Your task to perform on an android device: turn off javascript in the chrome app Image 0: 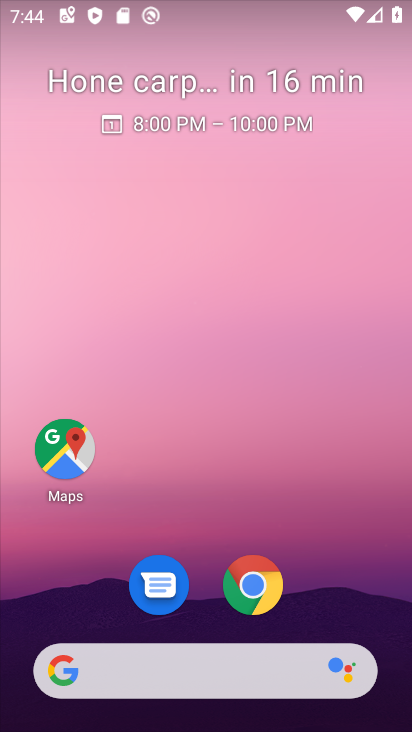
Step 0: click (264, 584)
Your task to perform on an android device: turn off javascript in the chrome app Image 1: 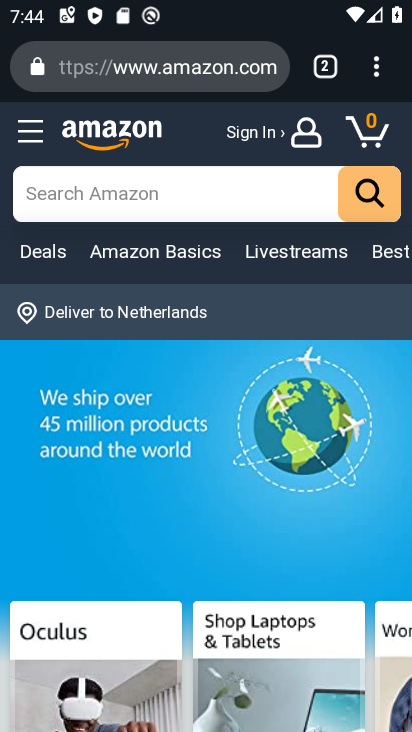
Step 1: click (378, 68)
Your task to perform on an android device: turn off javascript in the chrome app Image 2: 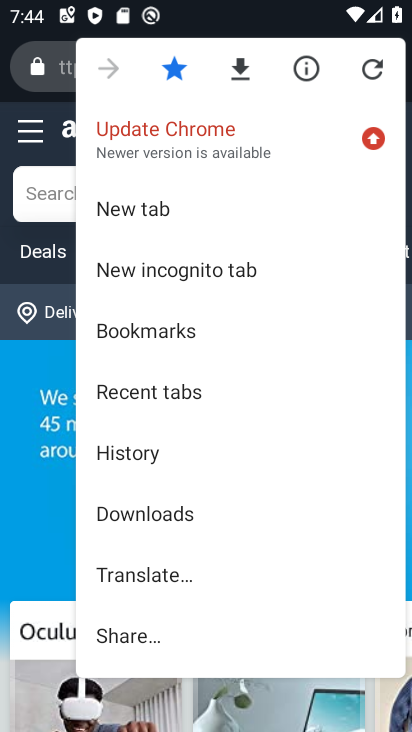
Step 2: drag from (301, 561) to (308, 249)
Your task to perform on an android device: turn off javascript in the chrome app Image 3: 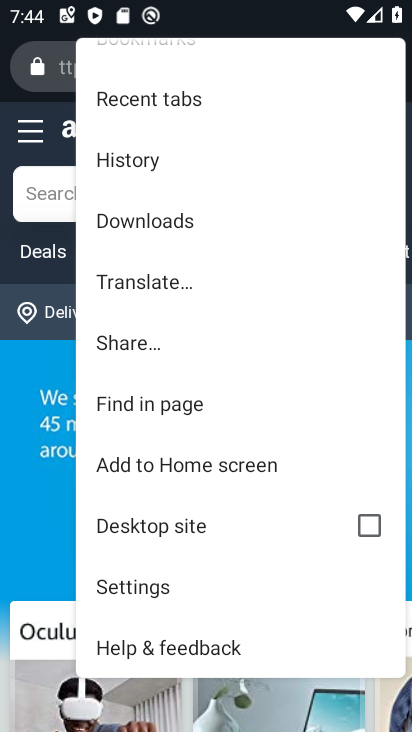
Step 3: click (195, 582)
Your task to perform on an android device: turn off javascript in the chrome app Image 4: 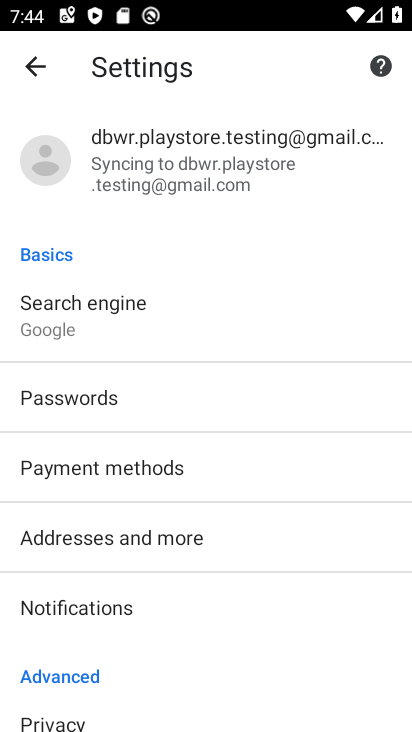
Step 4: drag from (195, 582) to (251, 310)
Your task to perform on an android device: turn off javascript in the chrome app Image 5: 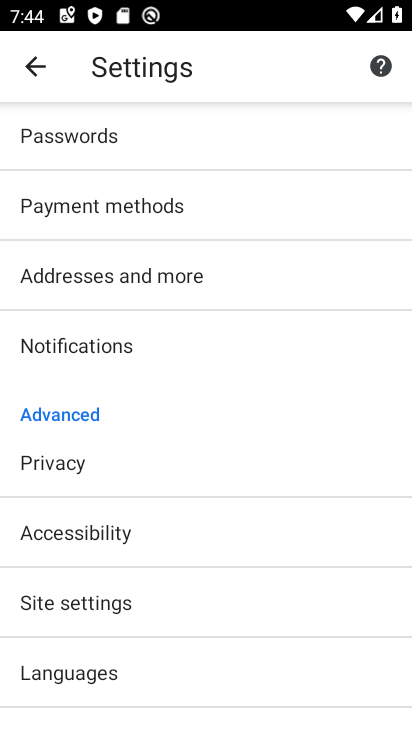
Step 5: click (182, 594)
Your task to perform on an android device: turn off javascript in the chrome app Image 6: 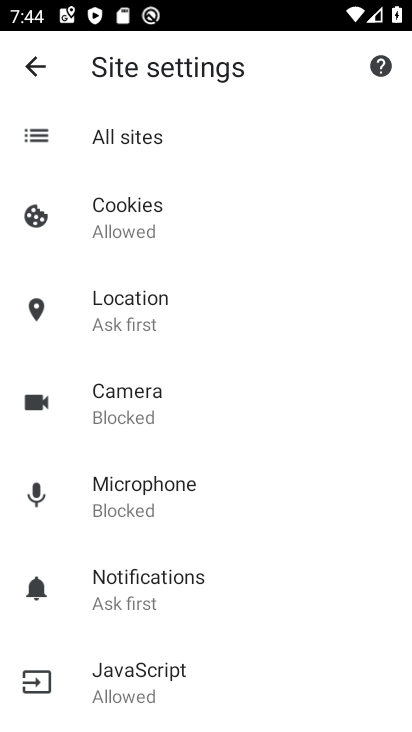
Step 6: click (177, 679)
Your task to perform on an android device: turn off javascript in the chrome app Image 7: 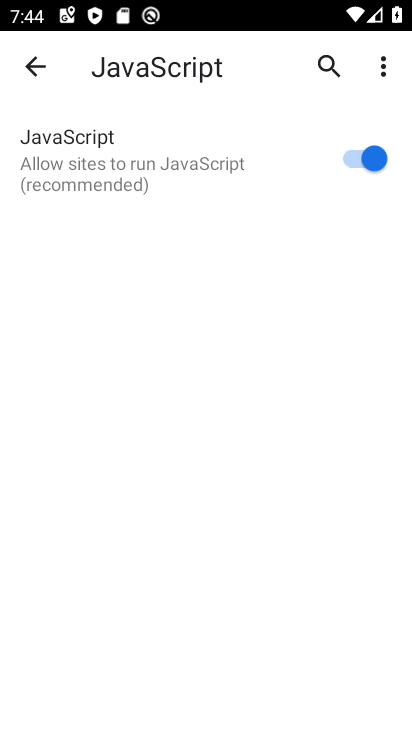
Step 7: click (375, 154)
Your task to perform on an android device: turn off javascript in the chrome app Image 8: 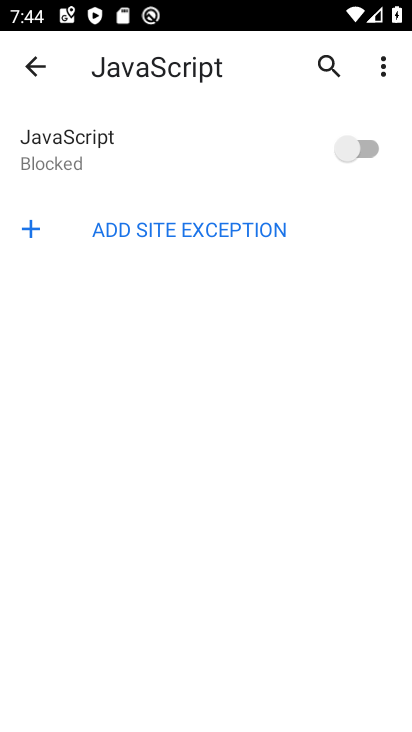
Step 8: task complete